Your task to perform on an android device: Go to Reddit.com Image 0: 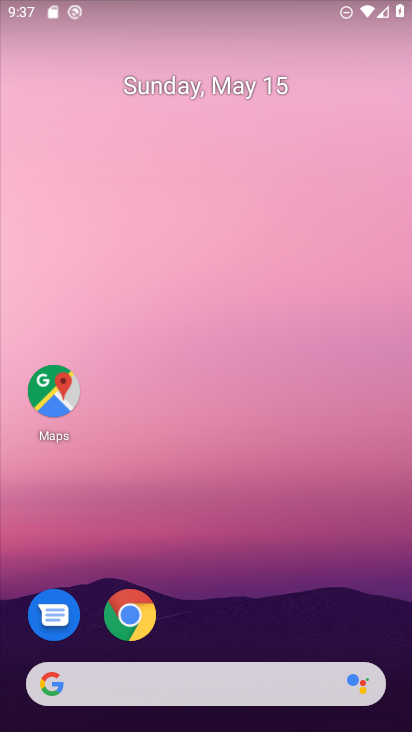
Step 0: click (148, 683)
Your task to perform on an android device: Go to Reddit.com Image 1: 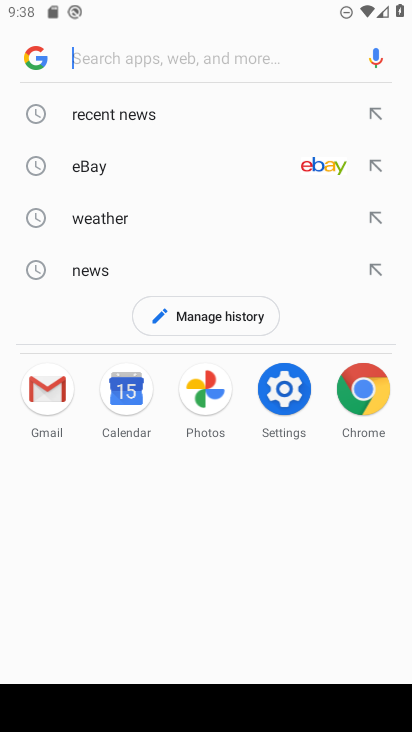
Step 1: type "Reddit.com"
Your task to perform on an android device: Go to Reddit.com Image 2: 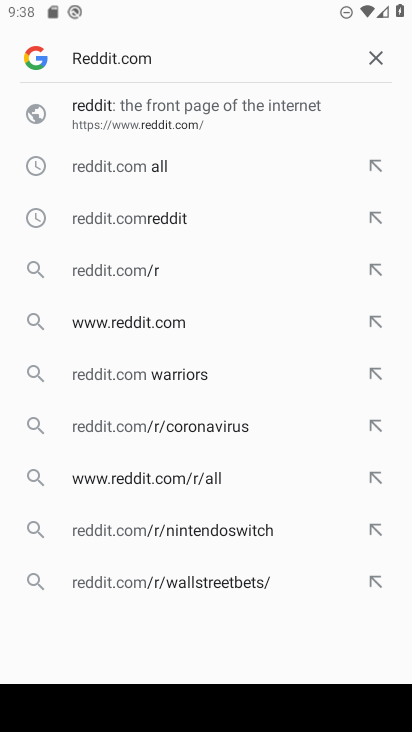
Step 2: click (195, 128)
Your task to perform on an android device: Go to Reddit.com Image 3: 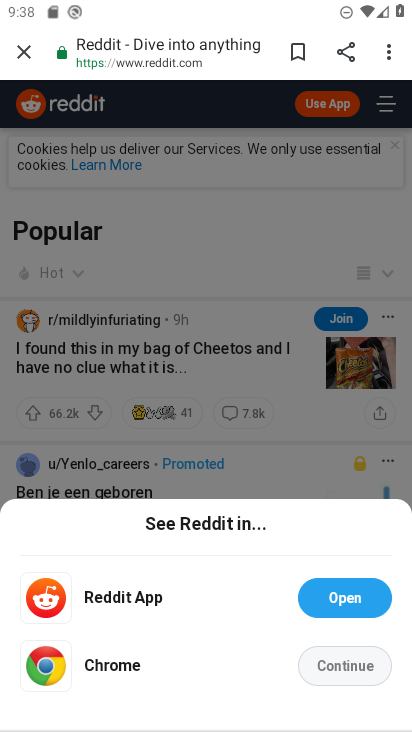
Step 3: click (350, 662)
Your task to perform on an android device: Go to Reddit.com Image 4: 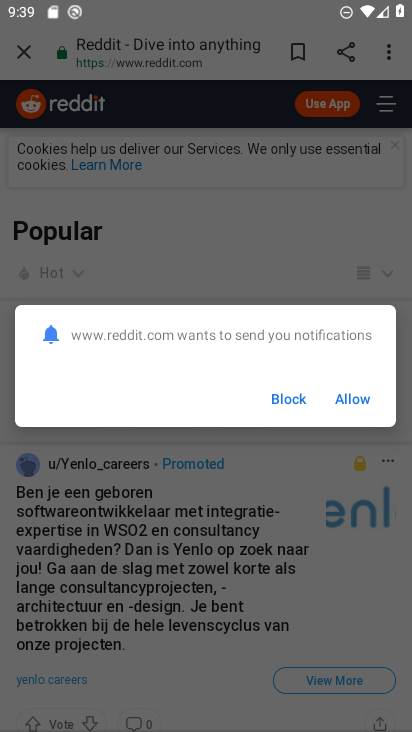
Step 4: task complete